Your task to perform on an android device: open device folders in google photos Image 0: 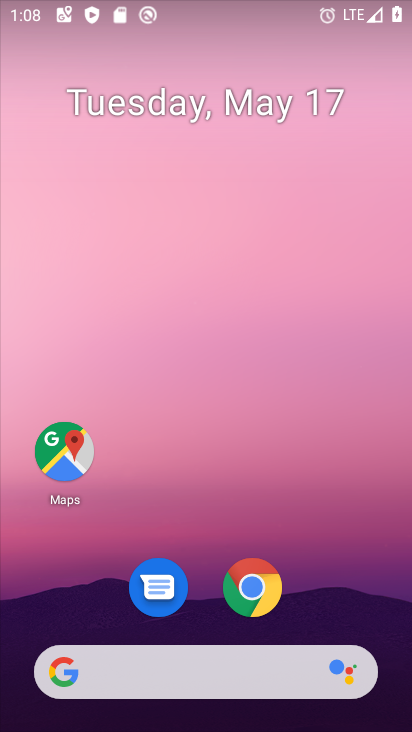
Step 0: drag from (392, 675) to (339, 17)
Your task to perform on an android device: open device folders in google photos Image 1: 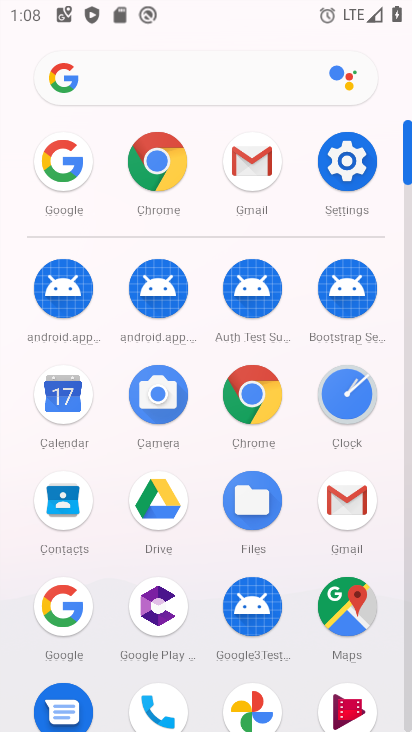
Step 1: click (241, 699)
Your task to perform on an android device: open device folders in google photos Image 2: 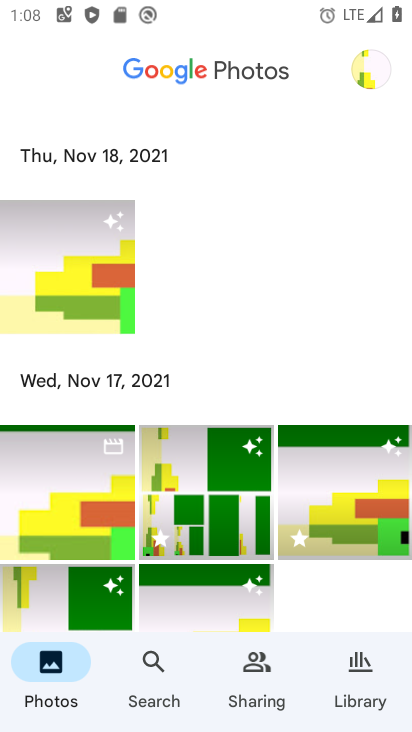
Step 2: task complete